Your task to perform on an android device: Open Chrome and go to settings Image 0: 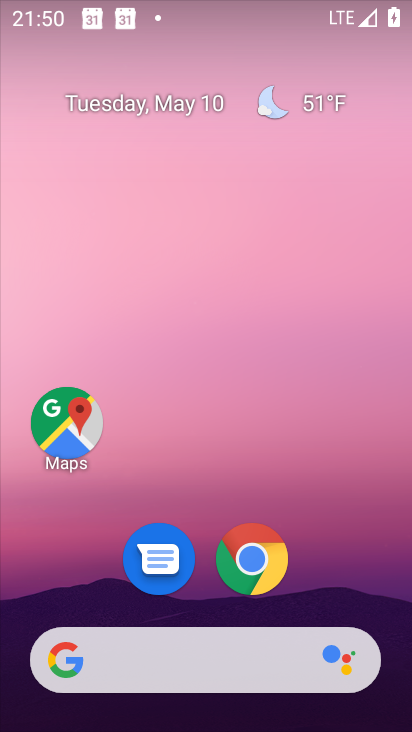
Step 0: click (257, 559)
Your task to perform on an android device: Open Chrome and go to settings Image 1: 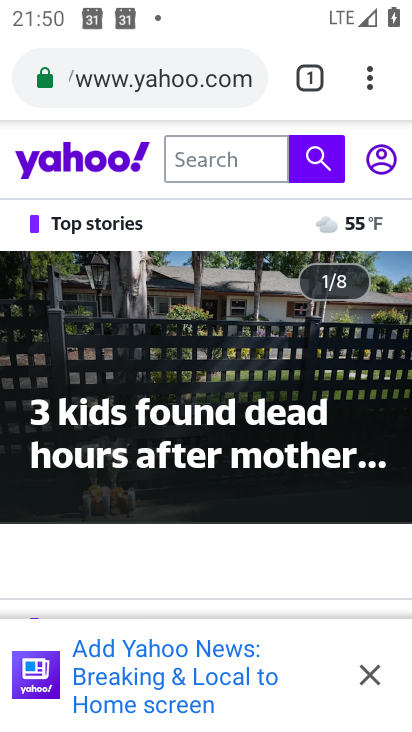
Step 1: click (370, 80)
Your task to perform on an android device: Open Chrome and go to settings Image 2: 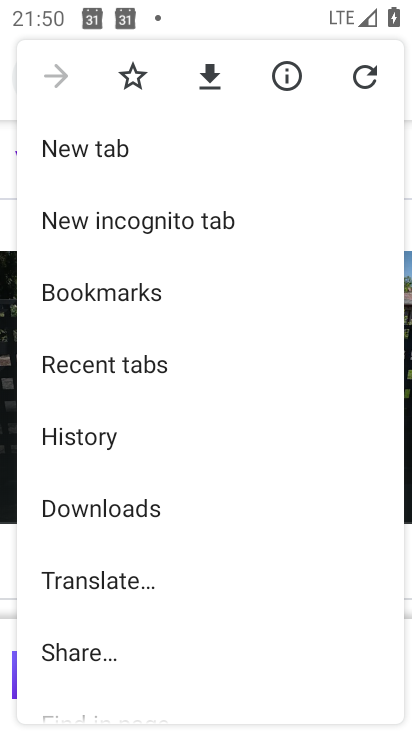
Step 2: drag from (147, 560) to (161, 464)
Your task to perform on an android device: Open Chrome and go to settings Image 3: 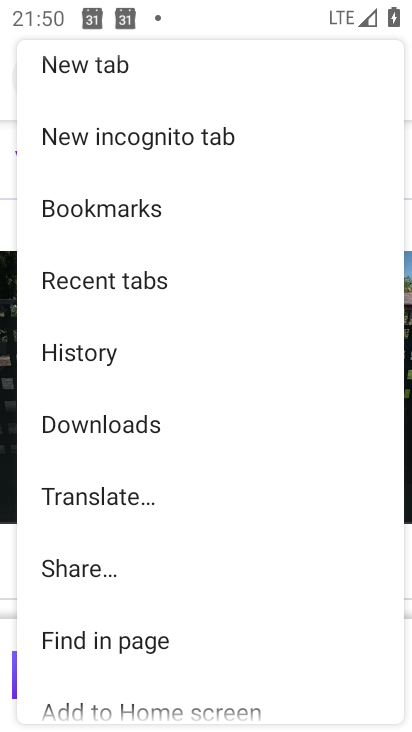
Step 3: drag from (88, 599) to (161, 479)
Your task to perform on an android device: Open Chrome and go to settings Image 4: 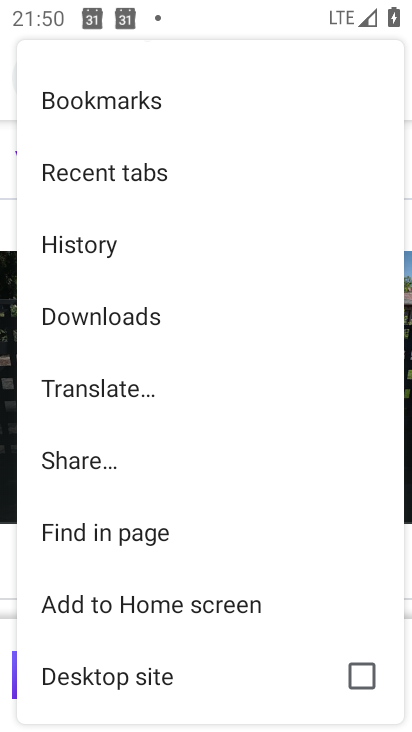
Step 4: drag from (105, 546) to (195, 422)
Your task to perform on an android device: Open Chrome and go to settings Image 5: 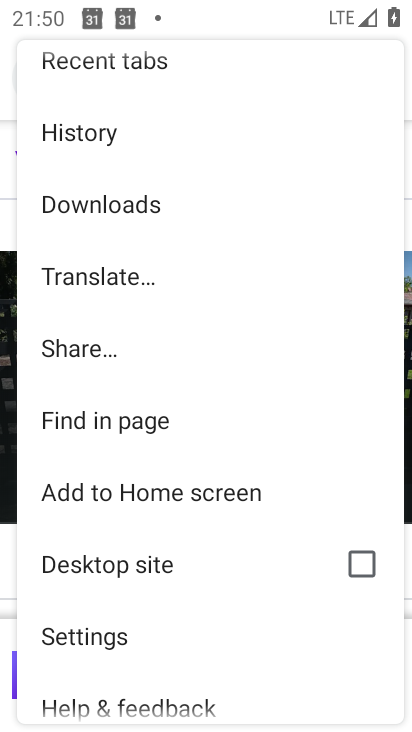
Step 5: drag from (97, 601) to (198, 451)
Your task to perform on an android device: Open Chrome and go to settings Image 6: 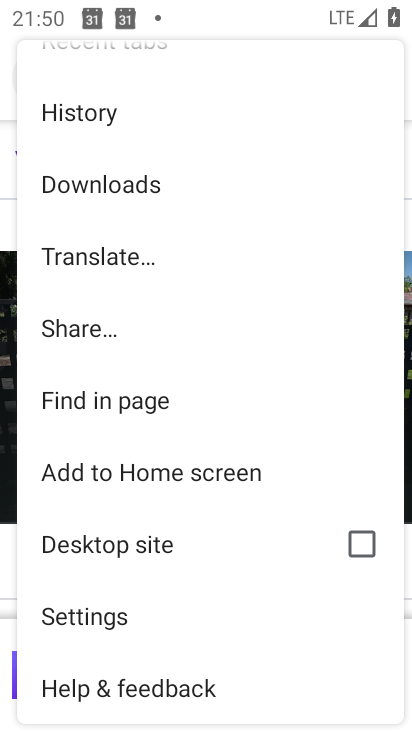
Step 6: click (106, 616)
Your task to perform on an android device: Open Chrome and go to settings Image 7: 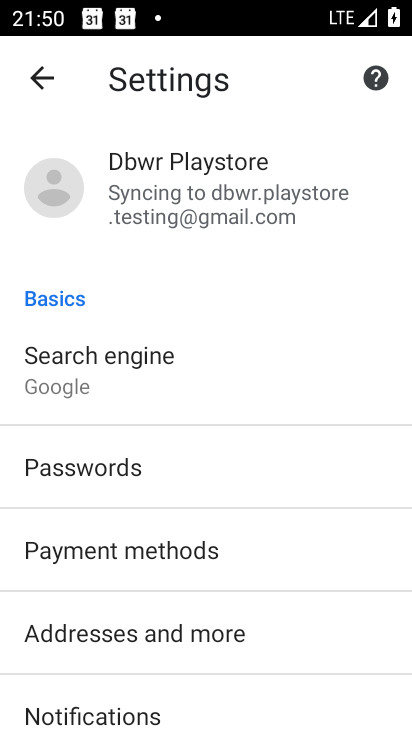
Step 7: task complete